Your task to perform on an android device: Open calendar and show me the first week of next month Image 0: 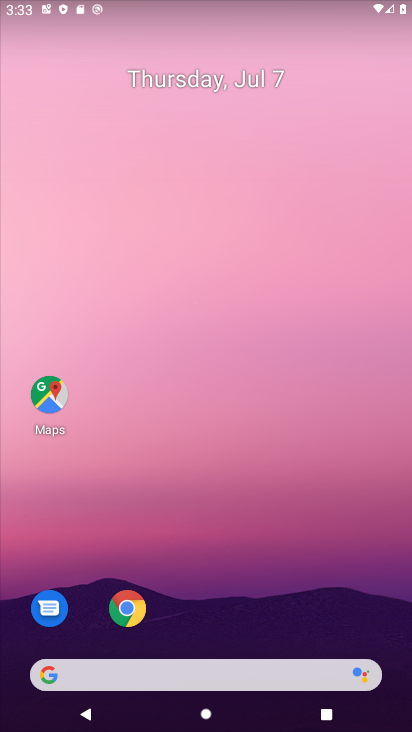
Step 0: drag from (362, 627) to (331, 106)
Your task to perform on an android device: Open calendar and show me the first week of next month Image 1: 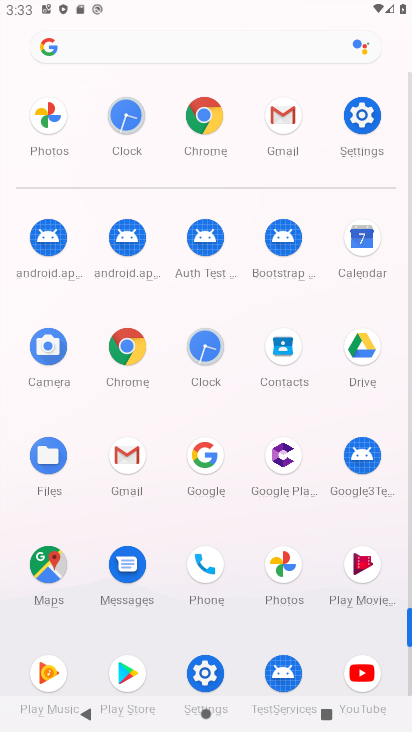
Step 1: click (363, 238)
Your task to perform on an android device: Open calendar and show me the first week of next month Image 2: 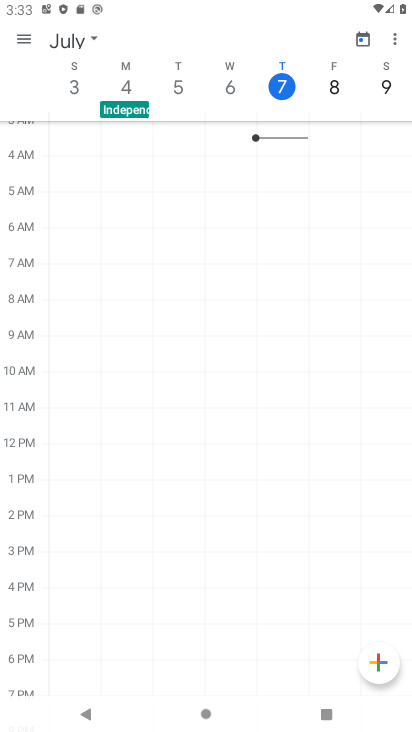
Step 2: click (88, 35)
Your task to perform on an android device: Open calendar and show me the first week of next month Image 3: 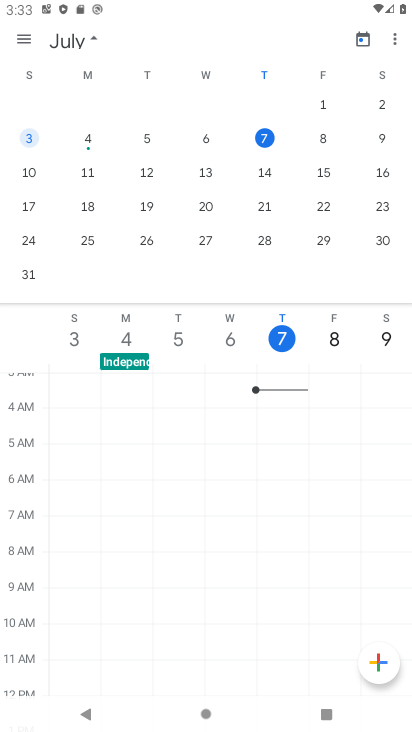
Step 3: drag from (395, 225) to (56, 206)
Your task to perform on an android device: Open calendar and show me the first week of next month Image 4: 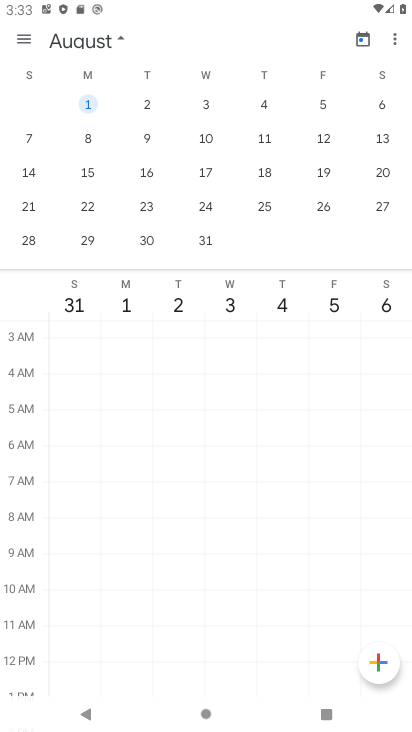
Step 4: click (21, 139)
Your task to perform on an android device: Open calendar and show me the first week of next month Image 5: 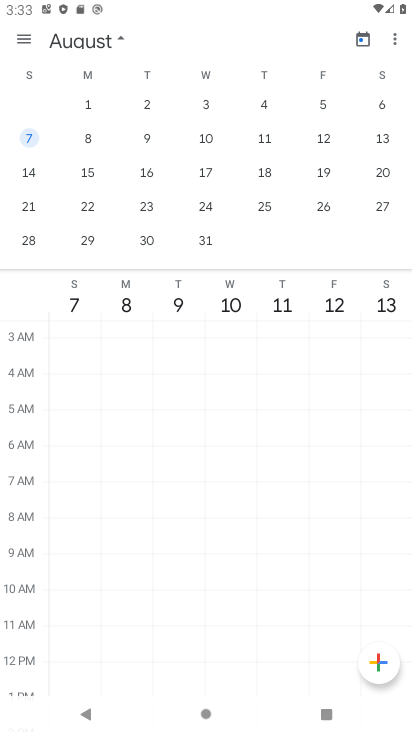
Step 5: task complete